Your task to perform on an android device: change notifications settings Image 0: 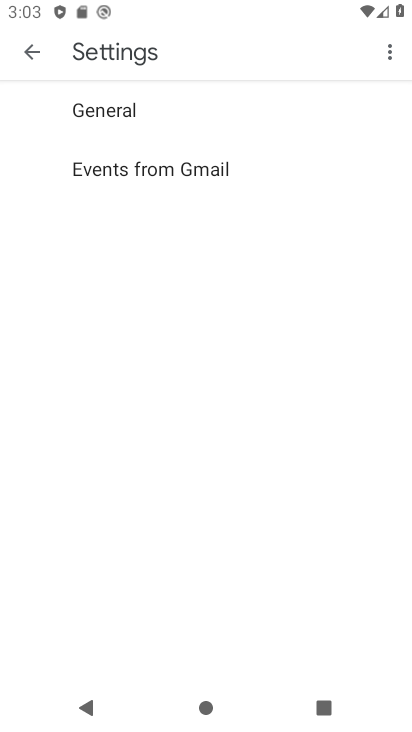
Step 0: press home button
Your task to perform on an android device: change notifications settings Image 1: 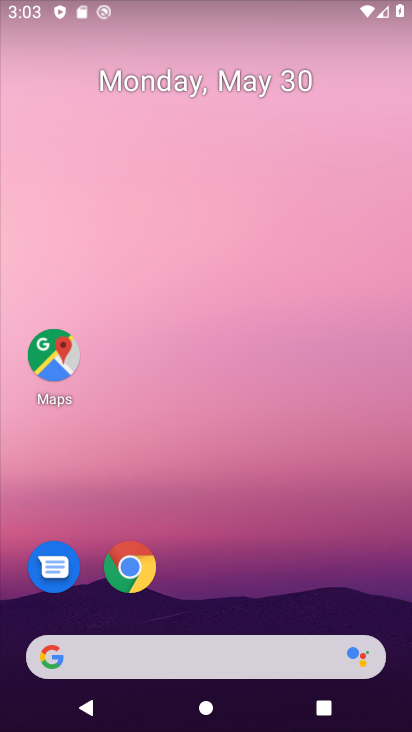
Step 1: drag from (256, 615) to (275, 29)
Your task to perform on an android device: change notifications settings Image 2: 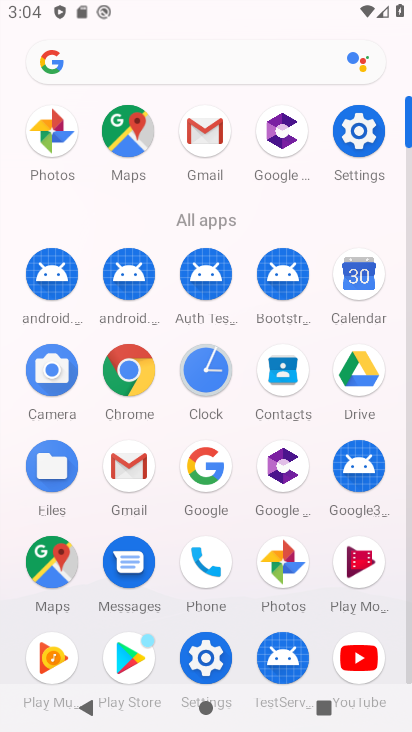
Step 2: click (207, 649)
Your task to perform on an android device: change notifications settings Image 3: 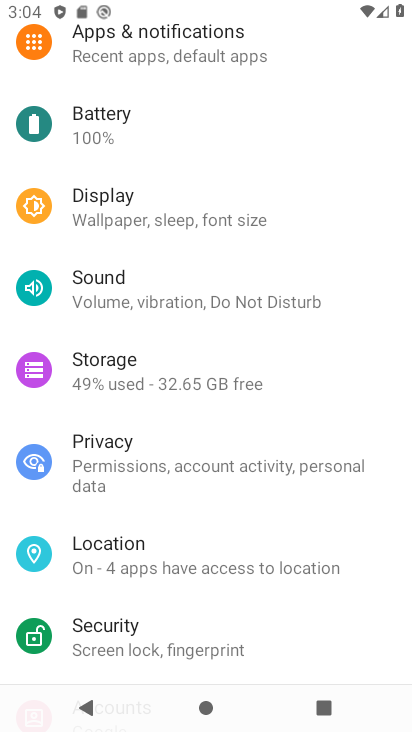
Step 3: drag from (181, 280) to (193, 634)
Your task to perform on an android device: change notifications settings Image 4: 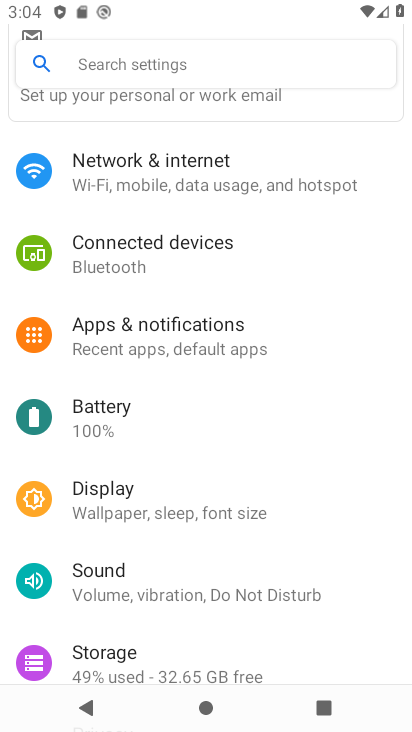
Step 4: click (146, 329)
Your task to perform on an android device: change notifications settings Image 5: 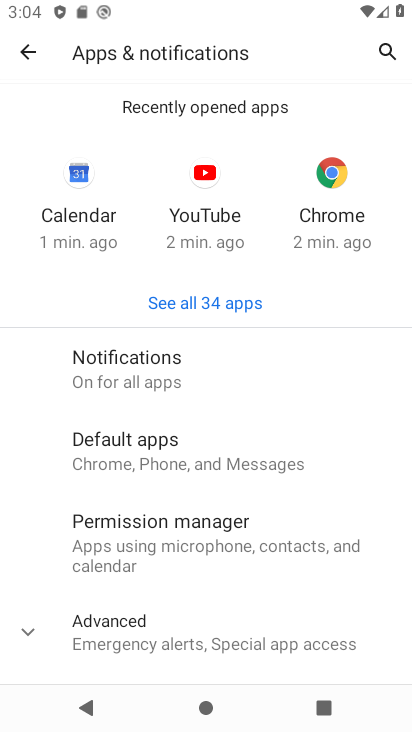
Step 5: click (115, 363)
Your task to perform on an android device: change notifications settings Image 6: 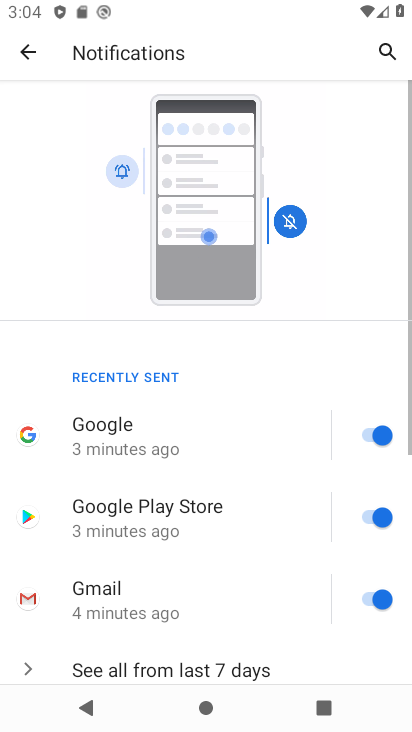
Step 6: drag from (203, 625) to (198, 277)
Your task to perform on an android device: change notifications settings Image 7: 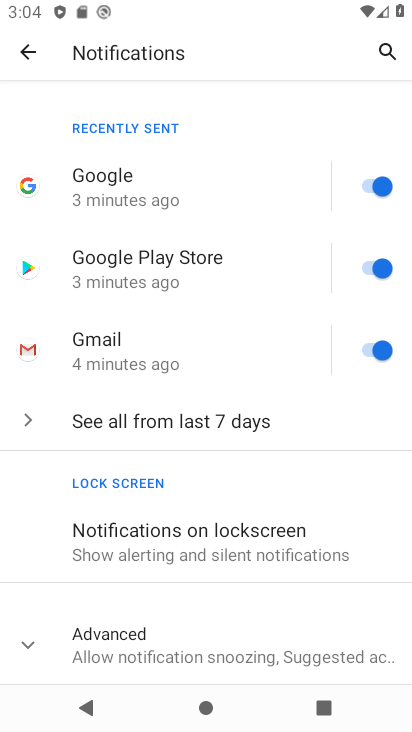
Step 7: click (179, 425)
Your task to perform on an android device: change notifications settings Image 8: 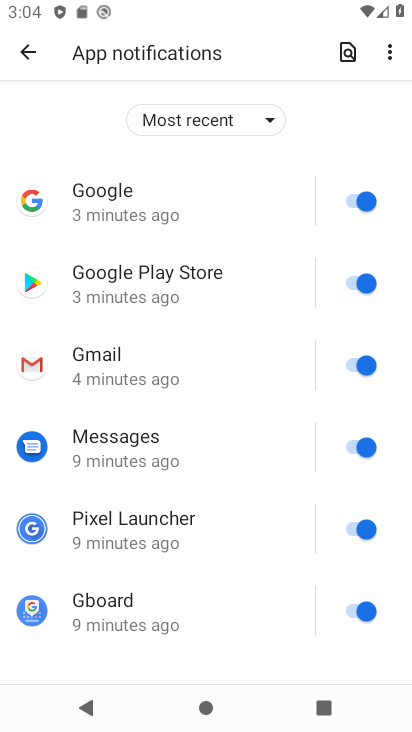
Step 8: click (356, 199)
Your task to perform on an android device: change notifications settings Image 9: 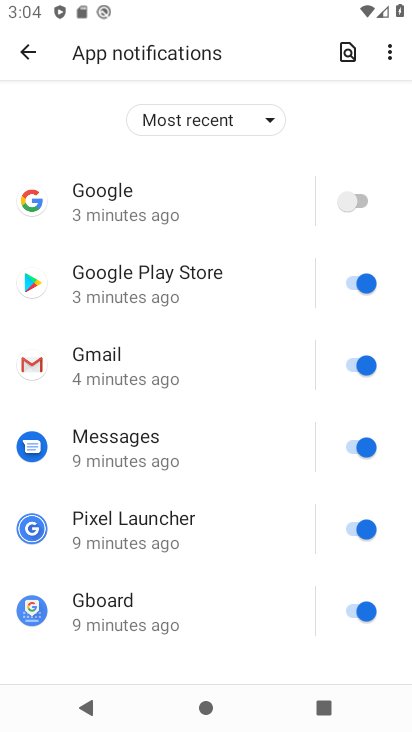
Step 9: click (363, 273)
Your task to perform on an android device: change notifications settings Image 10: 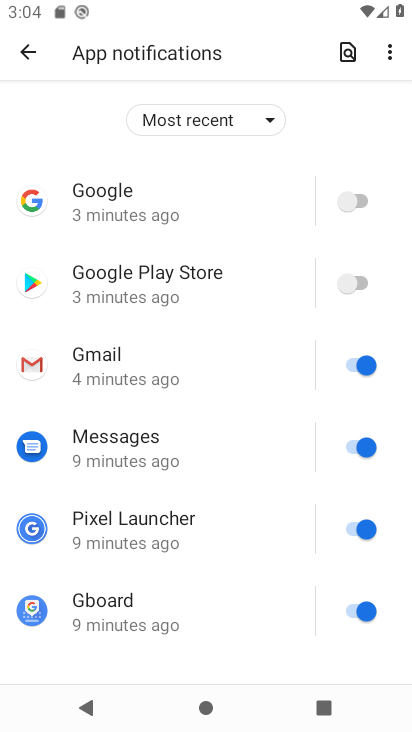
Step 10: click (360, 368)
Your task to perform on an android device: change notifications settings Image 11: 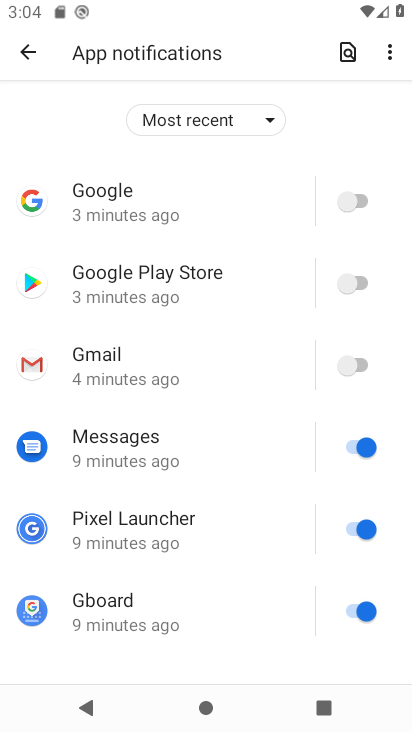
Step 11: click (362, 445)
Your task to perform on an android device: change notifications settings Image 12: 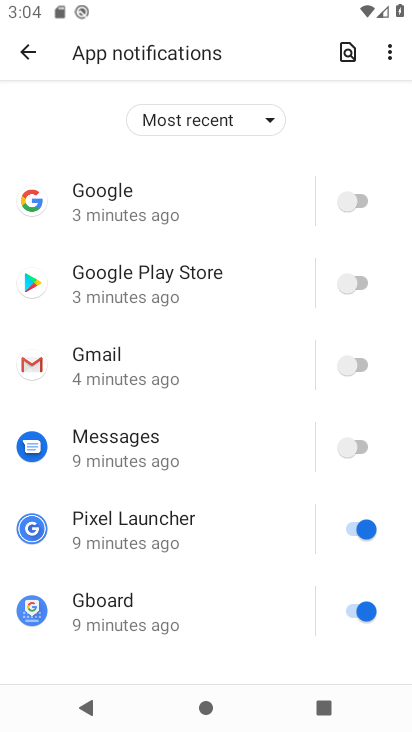
Step 12: click (353, 521)
Your task to perform on an android device: change notifications settings Image 13: 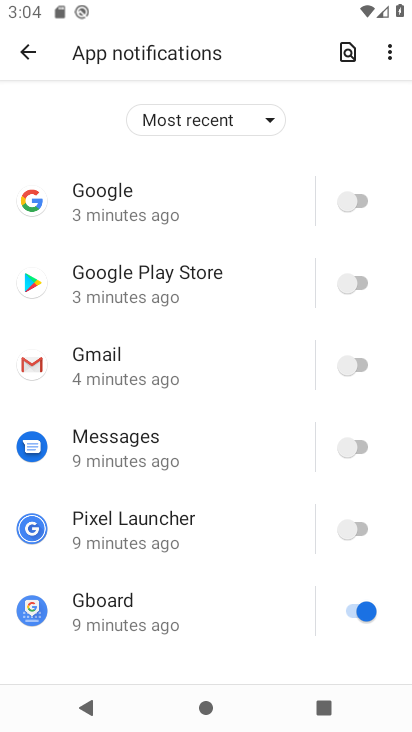
Step 13: click (343, 613)
Your task to perform on an android device: change notifications settings Image 14: 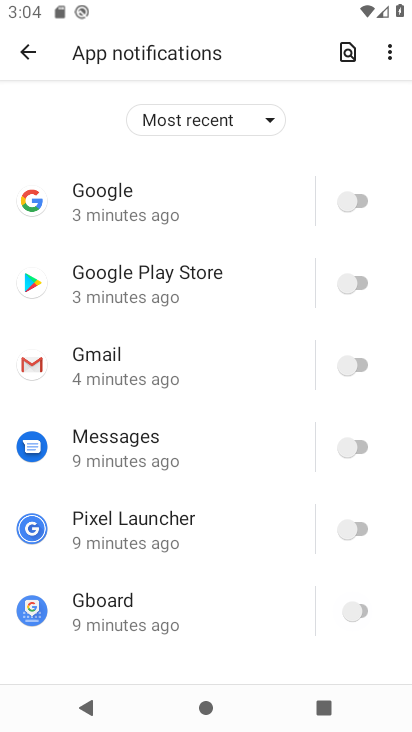
Step 14: drag from (222, 639) to (223, 144)
Your task to perform on an android device: change notifications settings Image 15: 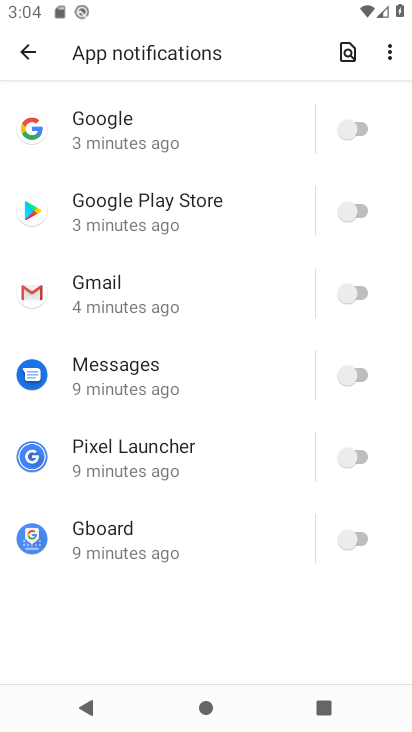
Step 15: click (37, 54)
Your task to perform on an android device: change notifications settings Image 16: 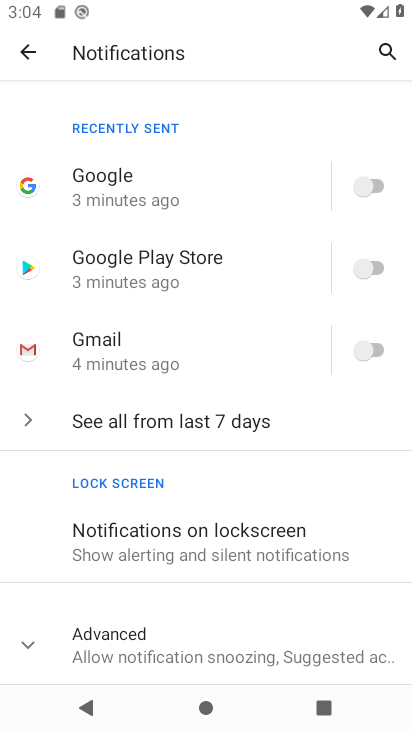
Step 16: click (159, 525)
Your task to perform on an android device: change notifications settings Image 17: 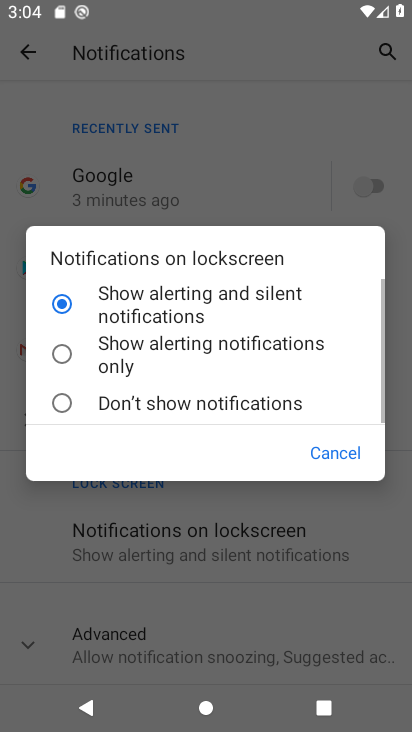
Step 17: click (141, 345)
Your task to perform on an android device: change notifications settings Image 18: 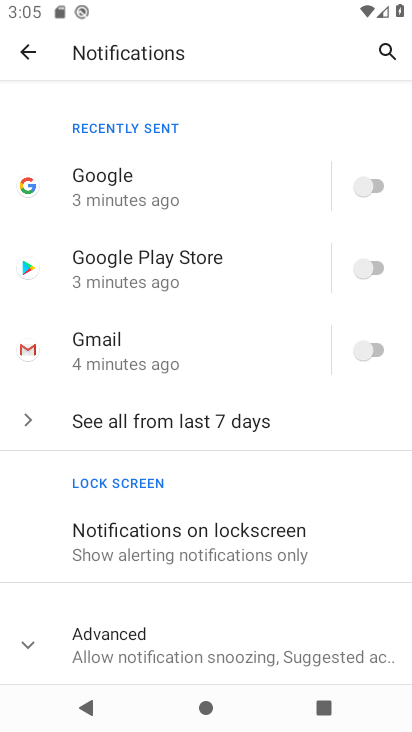
Step 18: click (169, 648)
Your task to perform on an android device: change notifications settings Image 19: 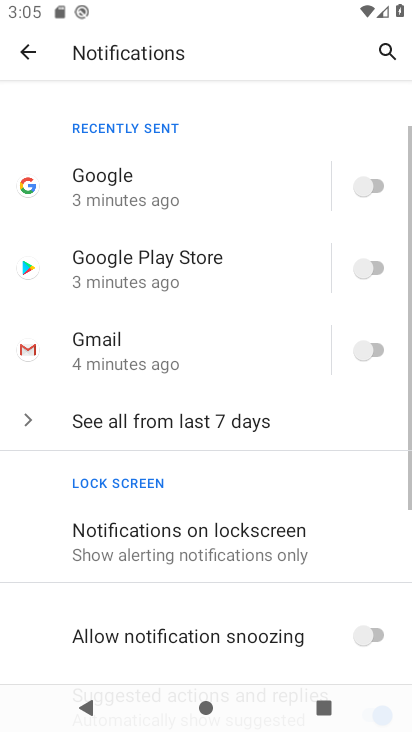
Step 19: drag from (196, 614) to (246, 181)
Your task to perform on an android device: change notifications settings Image 20: 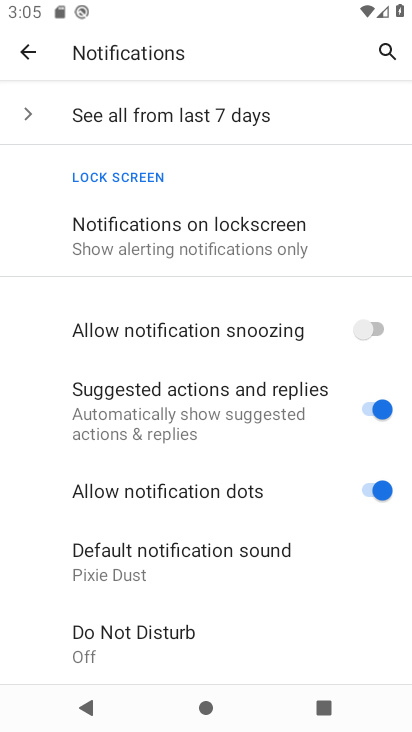
Step 20: click (363, 318)
Your task to perform on an android device: change notifications settings Image 21: 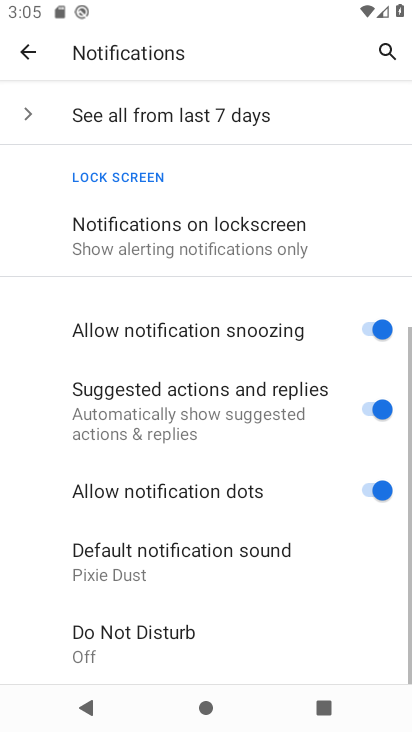
Step 21: click (377, 408)
Your task to perform on an android device: change notifications settings Image 22: 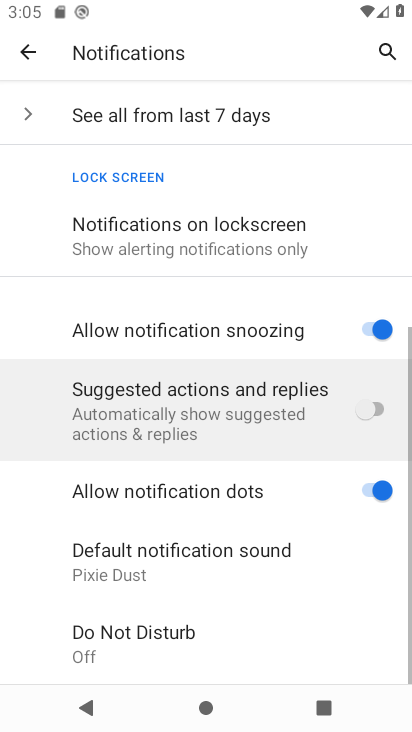
Step 22: click (381, 499)
Your task to perform on an android device: change notifications settings Image 23: 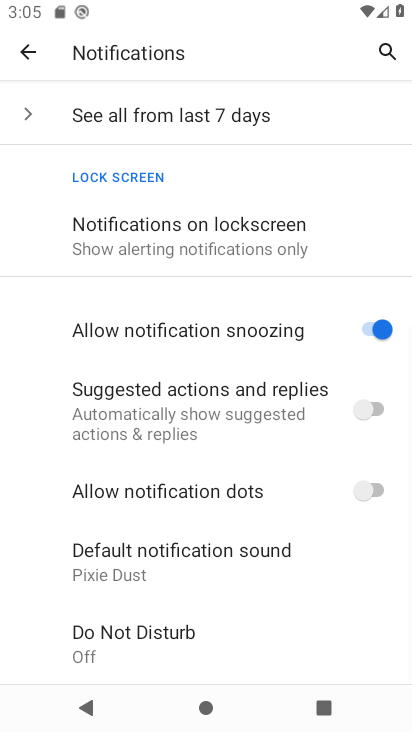
Step 23: task complete